Your task to perform on an android device: Open my contact list Image 0: 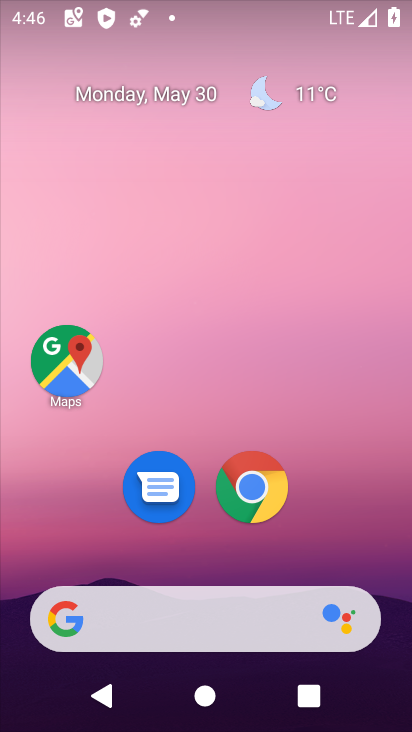
Step 0: drag from (404, 608) to (306, 100)
Your task to perform on an android device: Open my contact list Image 1: 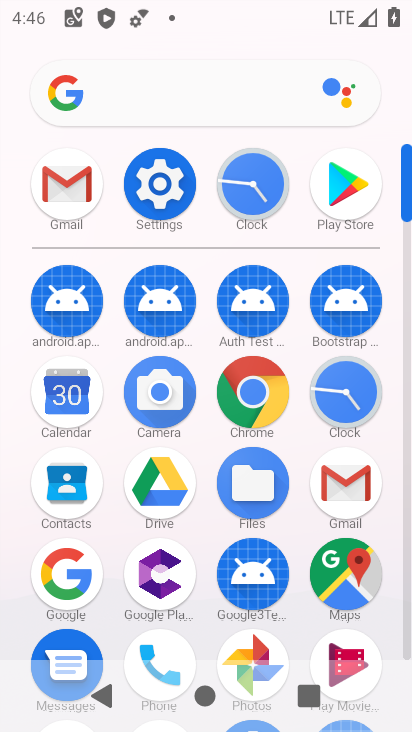
Step 1: click (404, 643)
Your task to perform on an android device: Open my contact list Image 2: 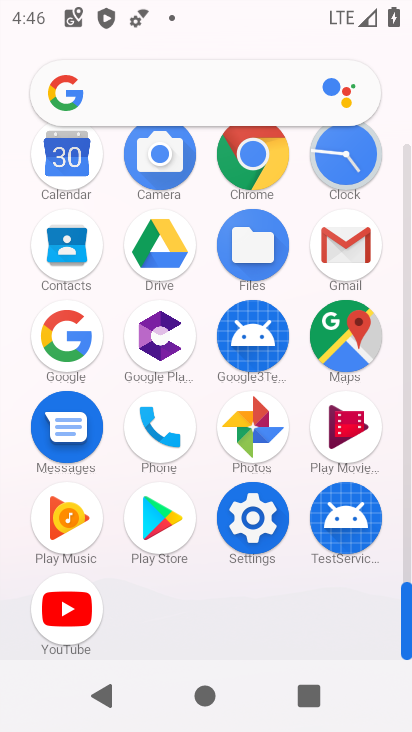
Step 2: click (66, 240)
Your task to perform on an android device: Open my contact list Image 3: 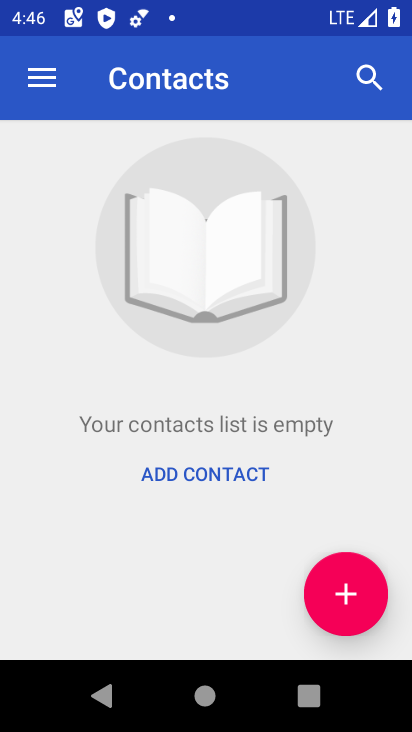
Step 3: task complete